Your task to perform on an android device: Open my contact list Image 0: 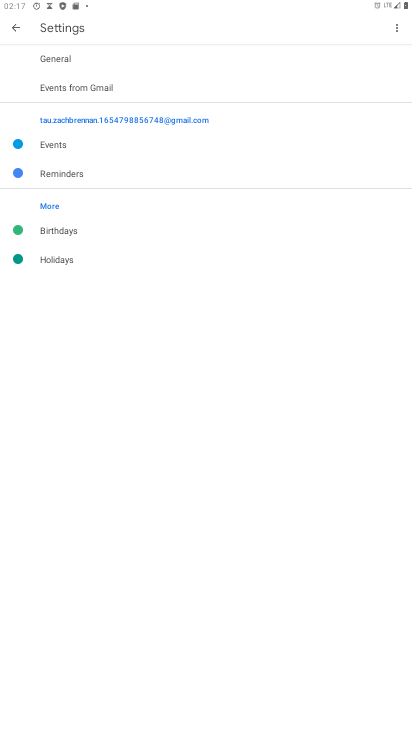
Step 0: press home button
Your task to perform on an android device: Open my contact list Image 1: 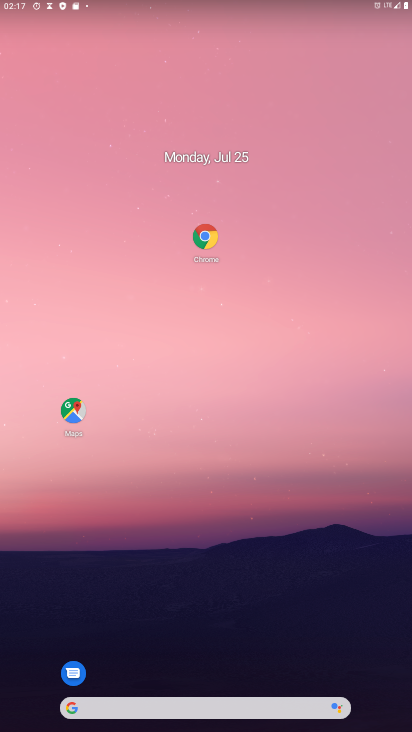
Step 1: drag from (203, 693) to (264, 5)
Your task to perform on an android device: Open my contact list Image 2: 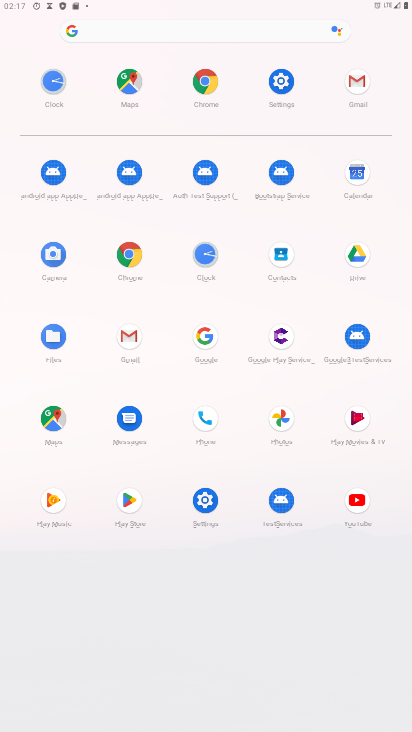
Step 2: click (278, 251)
Your task to perform on an android device: Open my contact list Image 3: 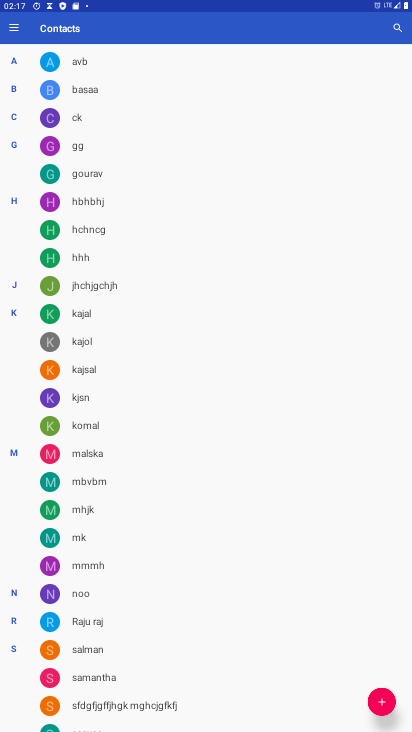
Step 3: task complete